Your task to perform on an android device: toggle notifications settings in the gmail app Image 0: 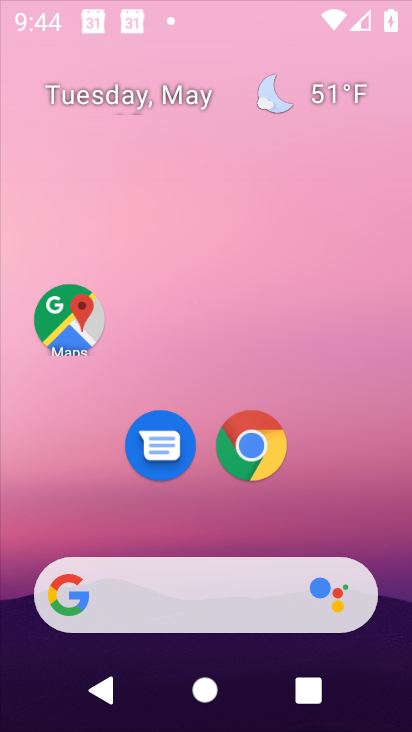
Step 0: click (131, 6)
Your task to perform on an android device: toggle notifications settings in the gmail app Image 1: 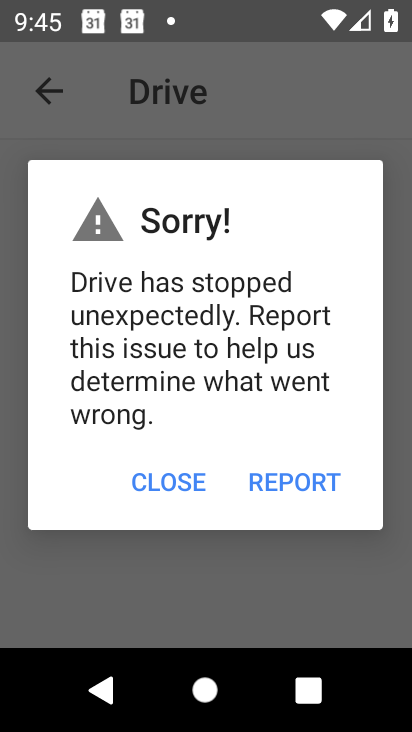
Step 1: press home button
Your task to perform on an android device: toggle notifications settings in the gmail app Image 2: 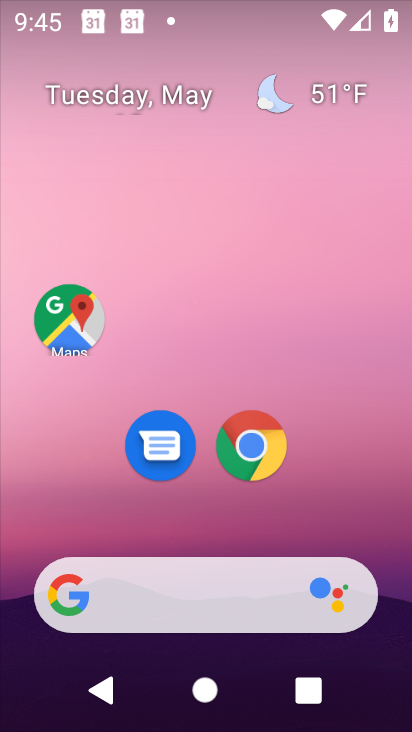
Step 2: drag from (230, 590) to (225, 124)
Your task to perform on an android device: toggle notifications settings in the gmail app Image 3: 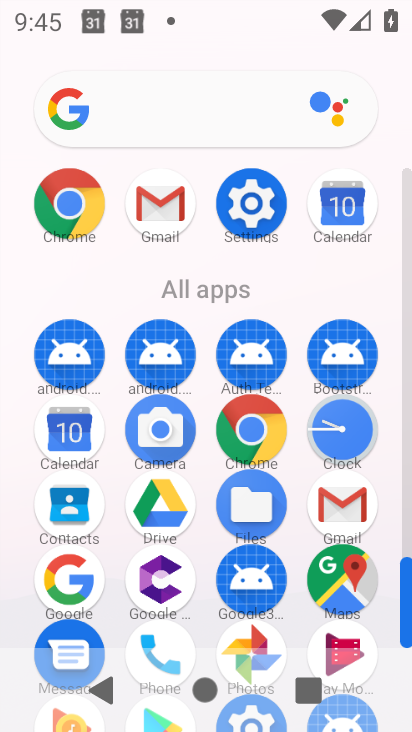
Step 3: click (346, 499)
Your task to perform on an android device: toggle notifications settings in the gmail app Image 4: 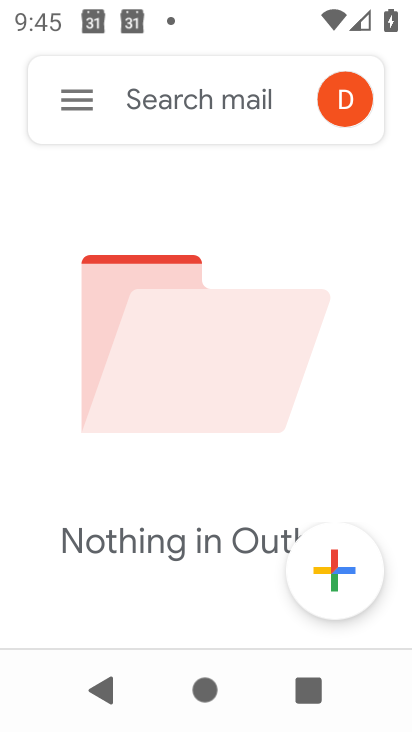
Step 4: click (85, 100)
Your task to perform on an android device: toggle notifications settings in the gmail app Image 5: 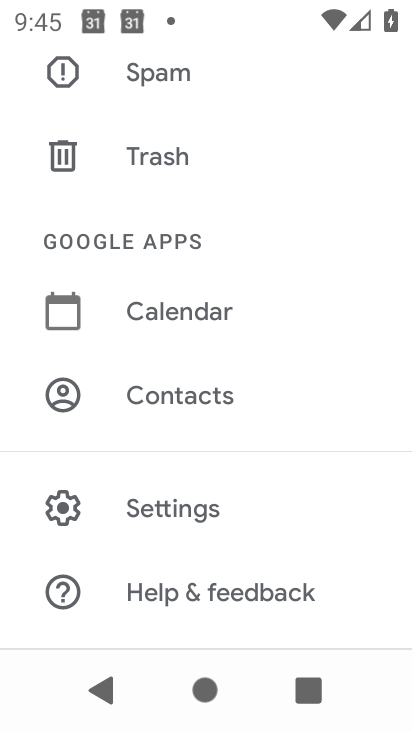
Step 5: click (174, 510)
Your task to perform on an android device: toggle notifications settings in the gmail app Image 6: 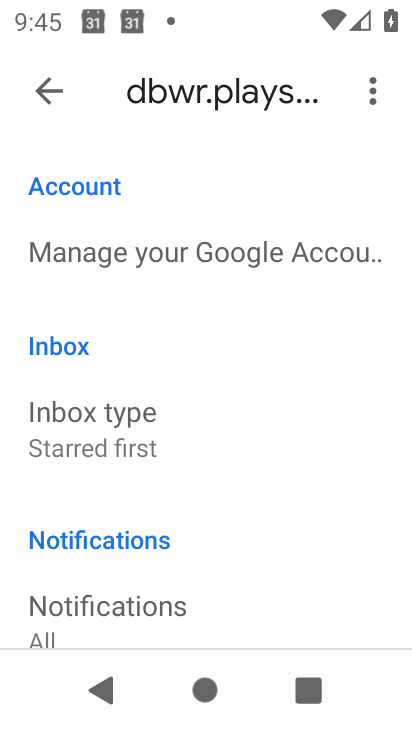
Step 6: drag from (198, 500) to (152, 211)
Your task to perform on an android device: toggle notifications settings in the gmail app Image 7: 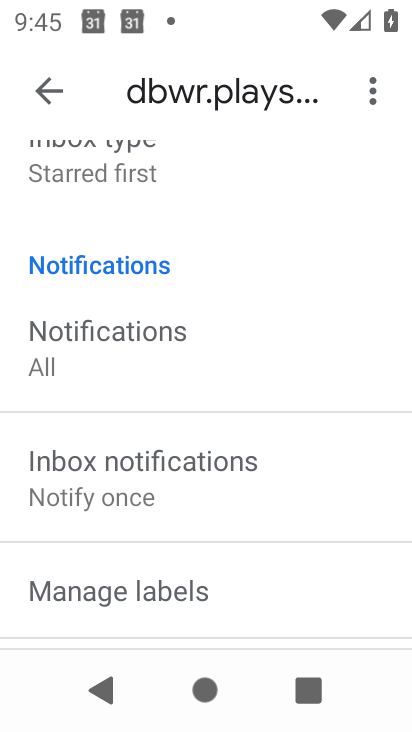
Step 7: drag from (152, 575) to (95, 152)
Your task to perform on an android device: toggle notifications settings in the gmail app Image 8: 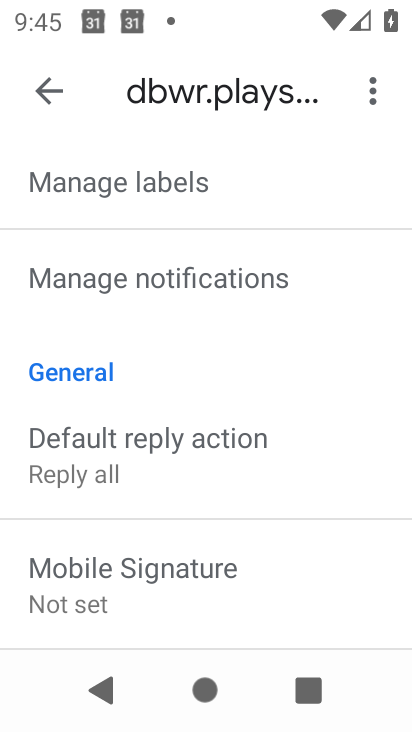
Step 8: click (158, 294)
Your task to perform on an android device: toggle notifications settings in the gmail app Image 9: 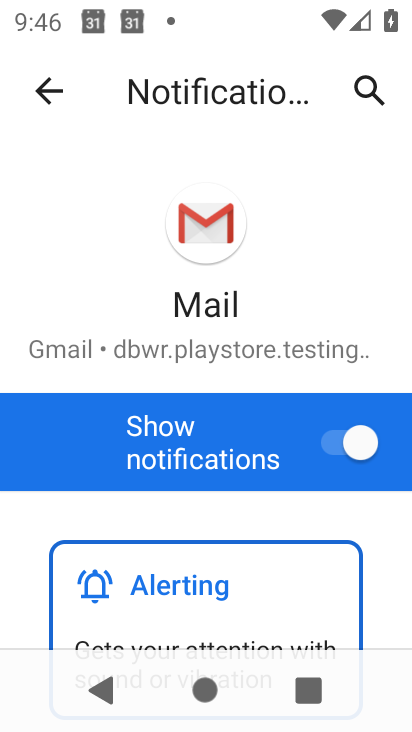
Step 9: click (336, 434)
Your task to perform on an android device: toggle notifications settings in the gmail app Image 10: 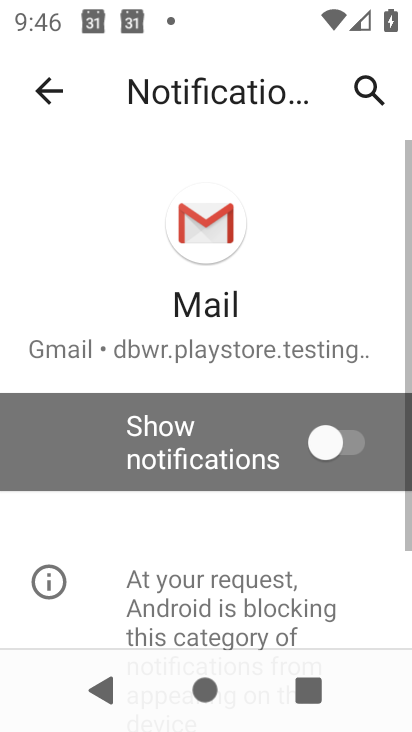
Step 10: task complete